Your task to perform on an android device: Clear all items from cart on ebay.com. Search for usb-c to usb-b on ebay.com, select the first entry, and add it to the cart. Image 0: 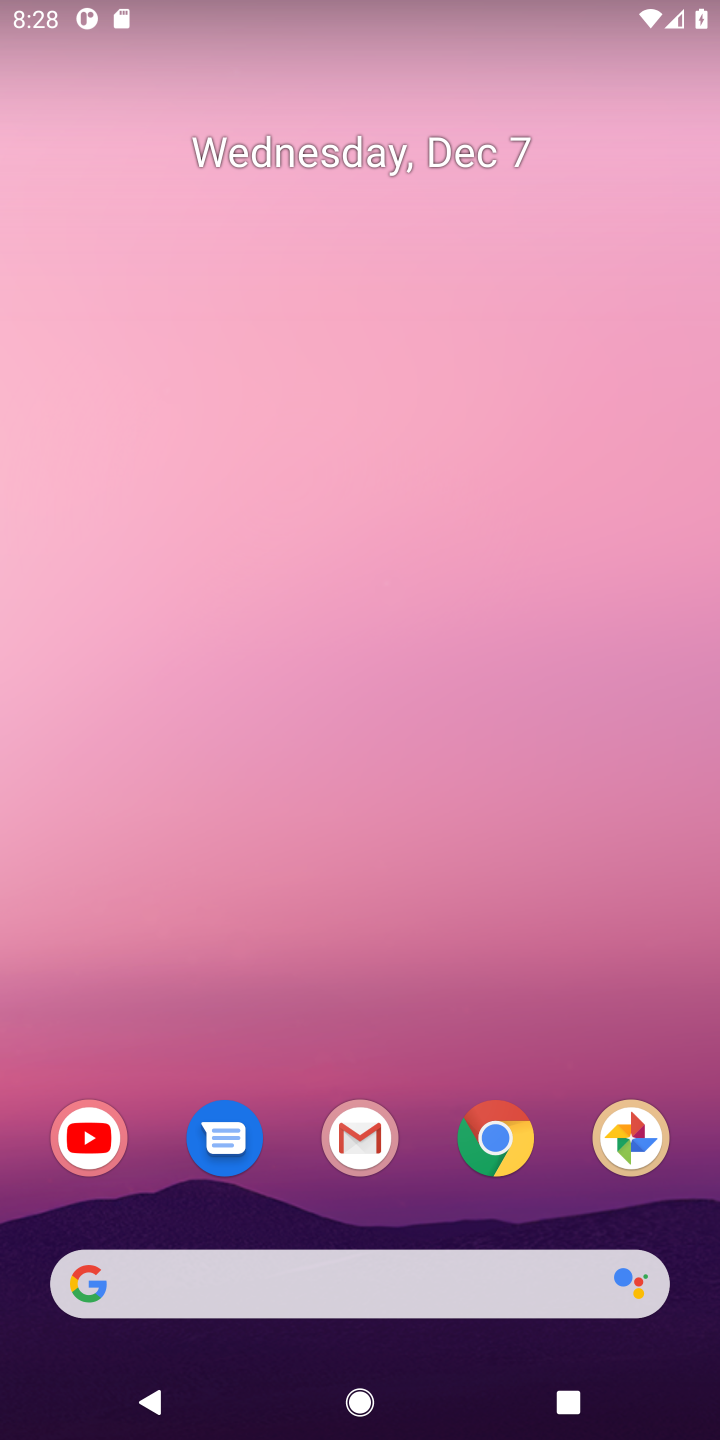
Step 0: press home button
Your task to perform on an android device: Clear all items from cart on ebay.com. Search for usb-c to usb-b on ebay.com, select the first entry, and add it to the cart. Image 1: 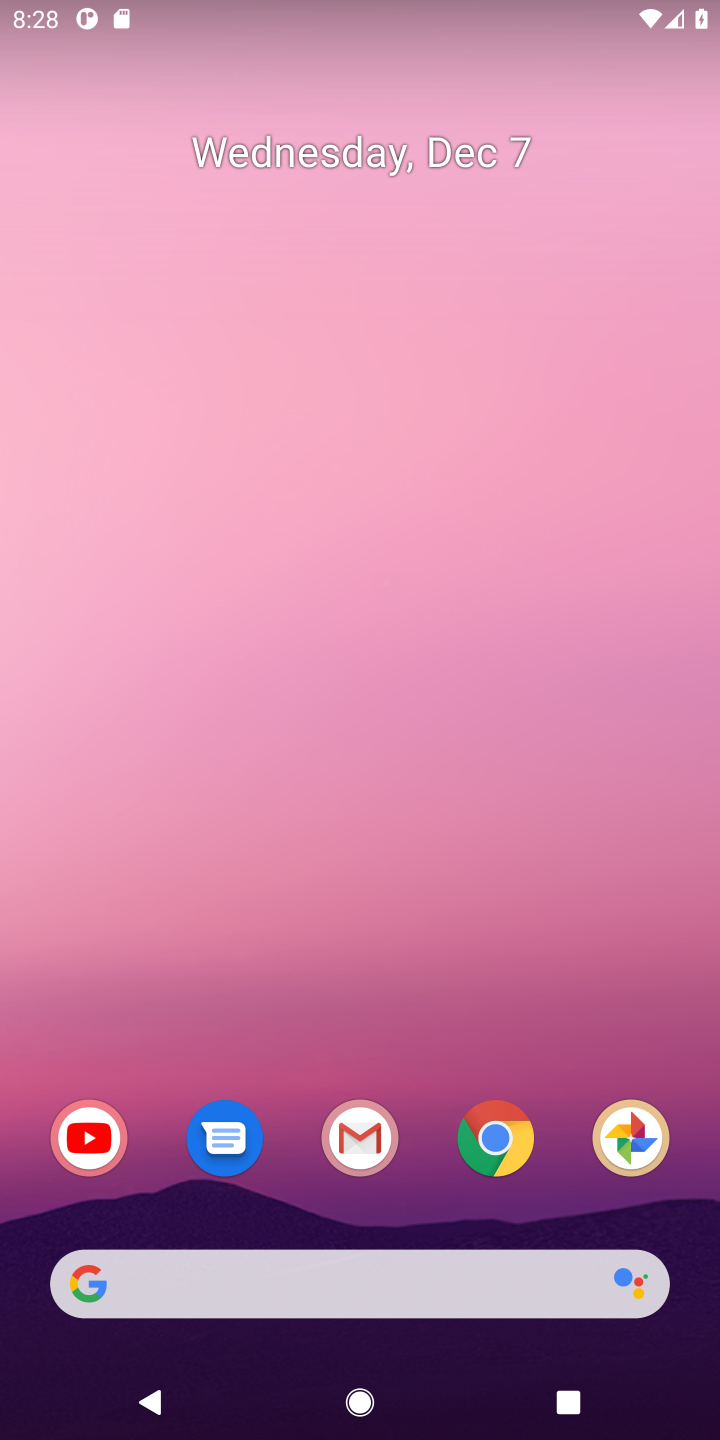
Step 1: click (134, 1289)
Your task to perform on an android device: Clear all items from cart on ebay.com. Search for usb-c to usb-b on ebay.com, select the first entry, and add it to the cart. Image 2: 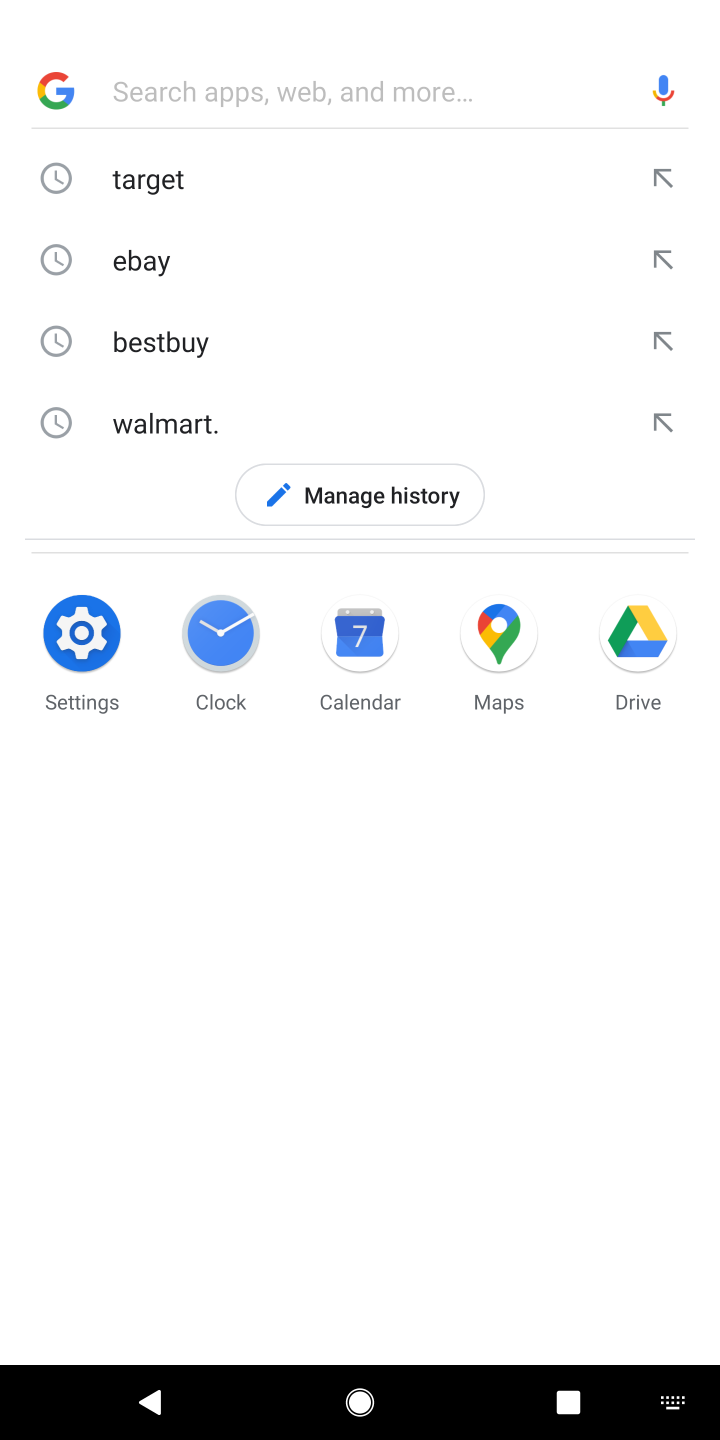
Step 2: type "ebay.com"
Your task to perform on an android device: Clear all items from cart on ebay.com. Search for usb-c to usb-b on ebay.com, select the first entry, and add it to the cart. Image 3: 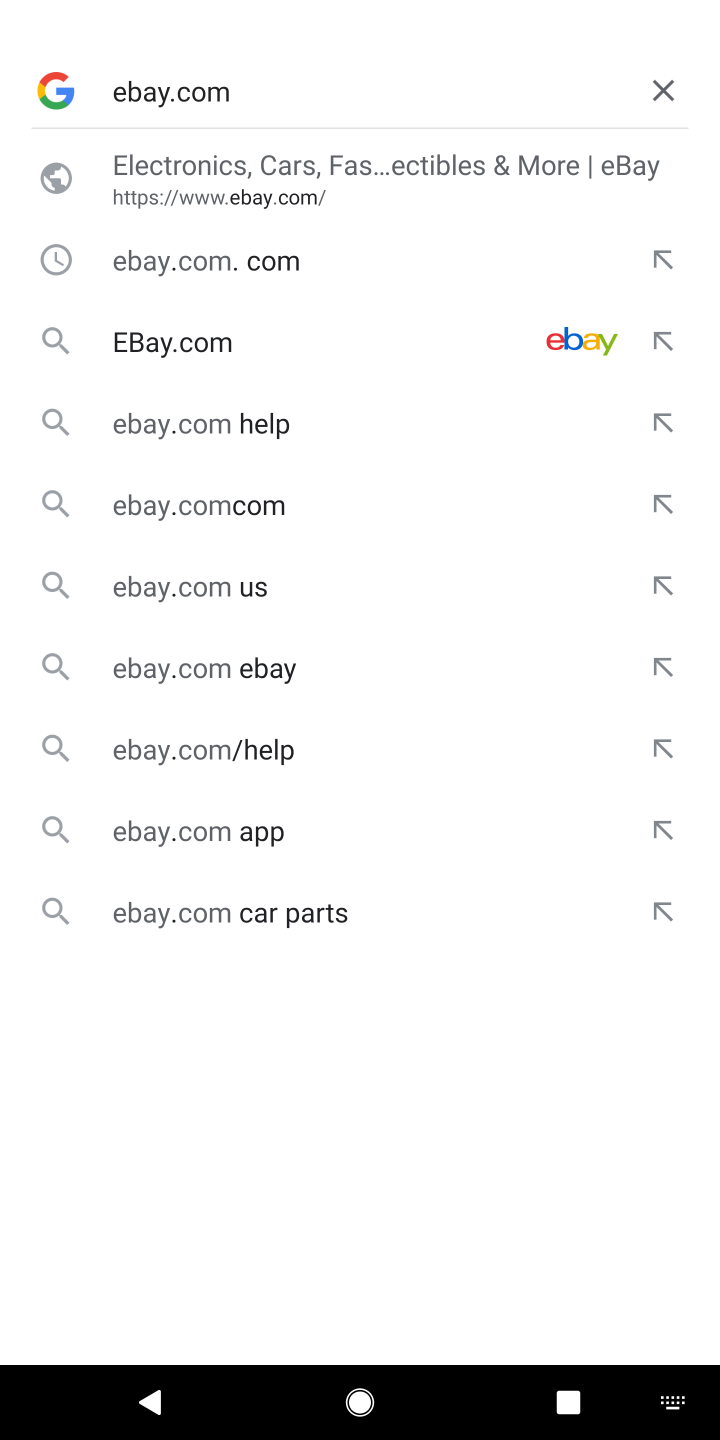
Step 3: press enter
Your task to perform on an android device: Clear all items from cart on ebay.com. Search for usb-c to usb-b on ebay.com, select the first entry, and add it to the cart. Image 4: 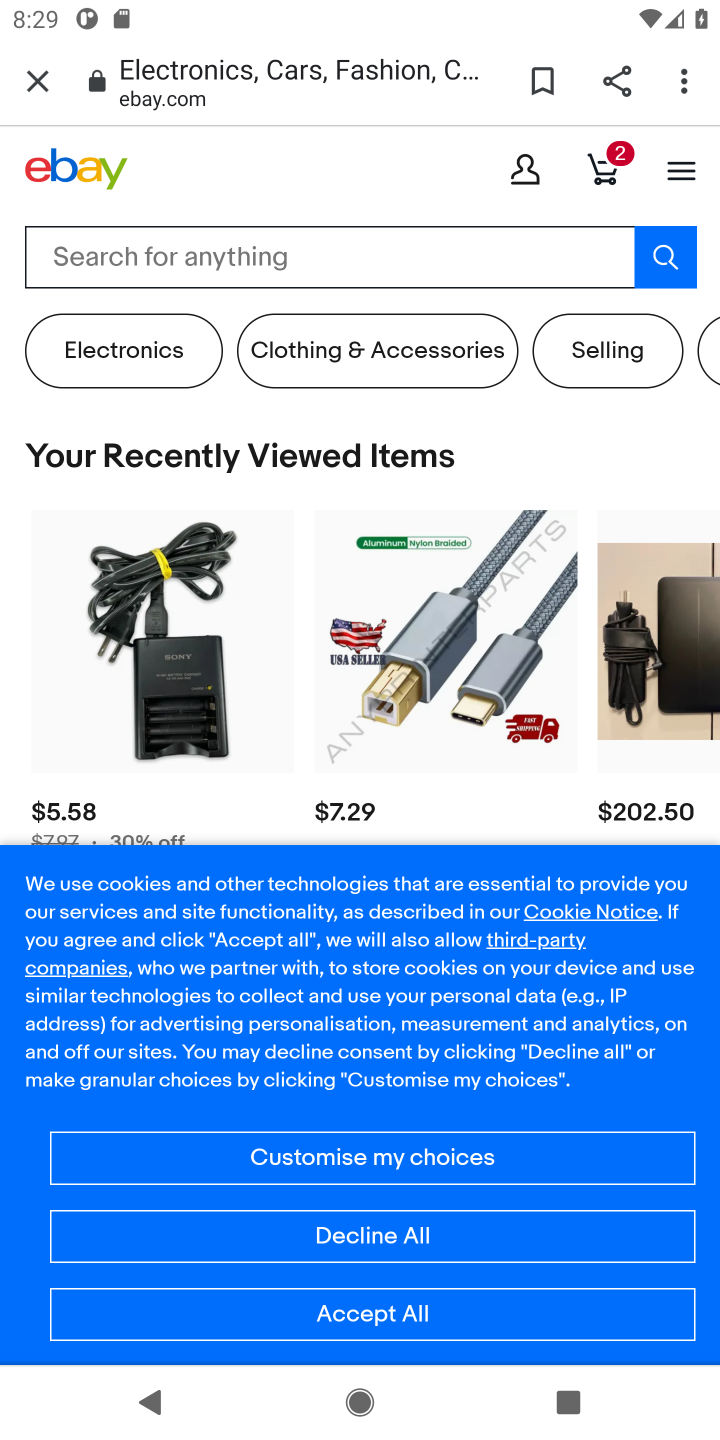
Step 4: click (600, 165)
Your task to perform on an android device: Clear all items from cart on ebay.com. Search for usb-c to usb-b on ebay.com, select the first entry, and add it to the cart. Image 5: 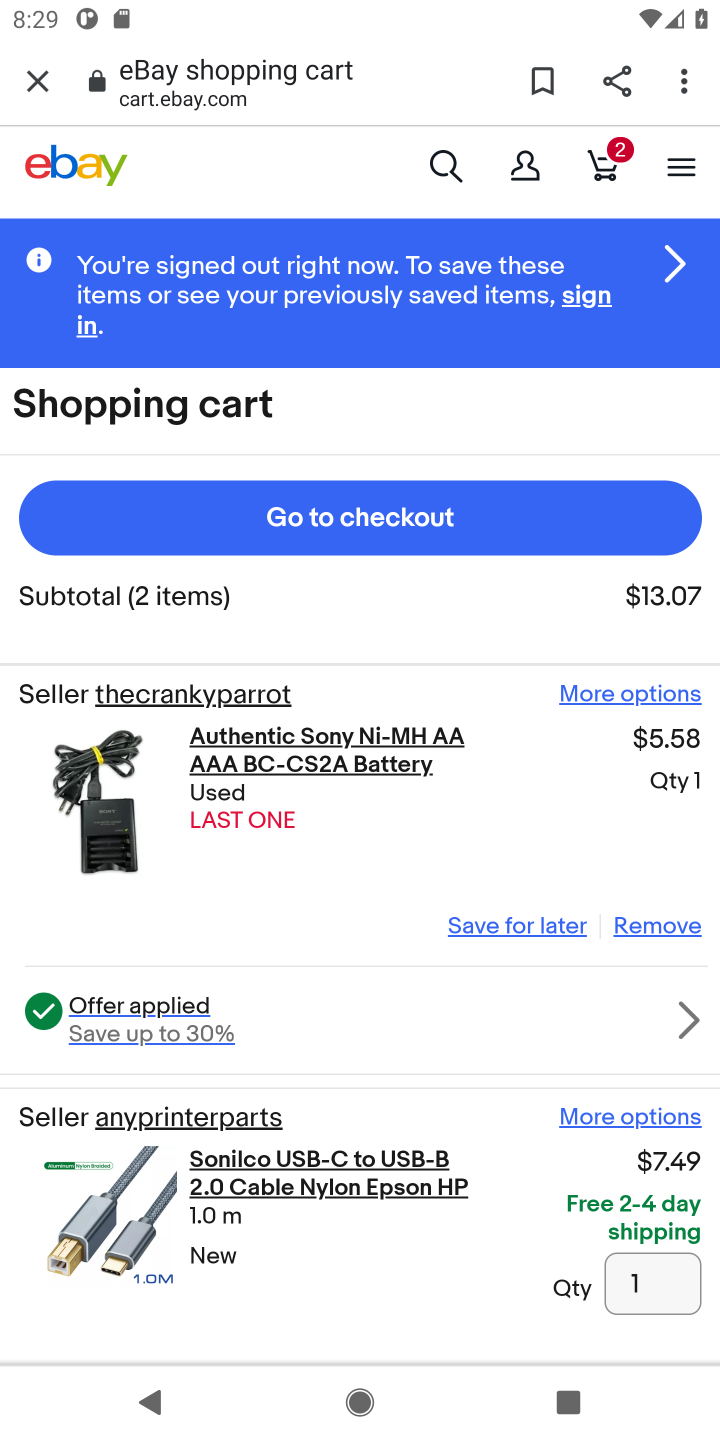
Step 5: click (659, 917)
Your task to perform on an android device: Clear all items from cart on ebay.com. Search for usb-c to usb-b on ebay.com, select the first entry, and add it to the cart. Image 6: 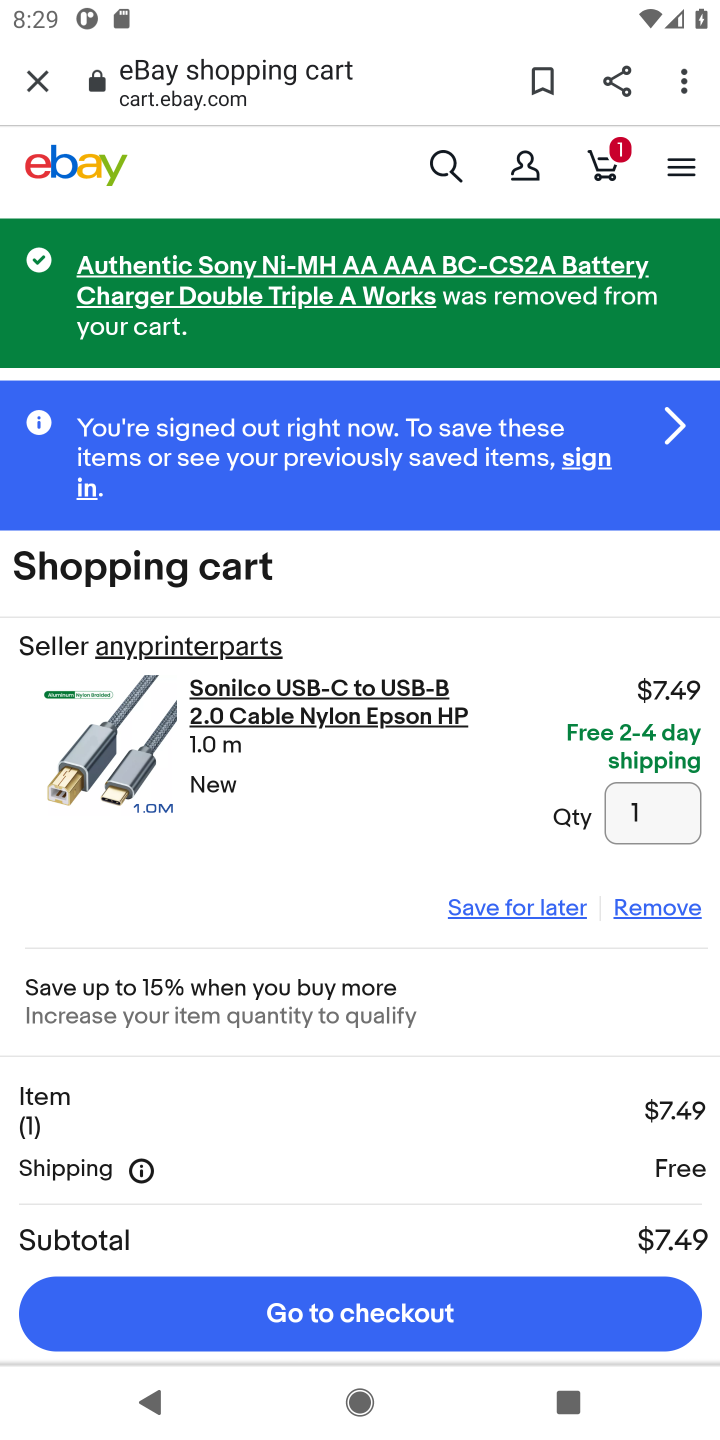
Step 6: click (652, 913)
Your task to perform on an android device: Clear all items from cart on ebay.com. Search for usb-c to usb-b on ebay.com, select the first entry, and add it to the cart. Image 7: 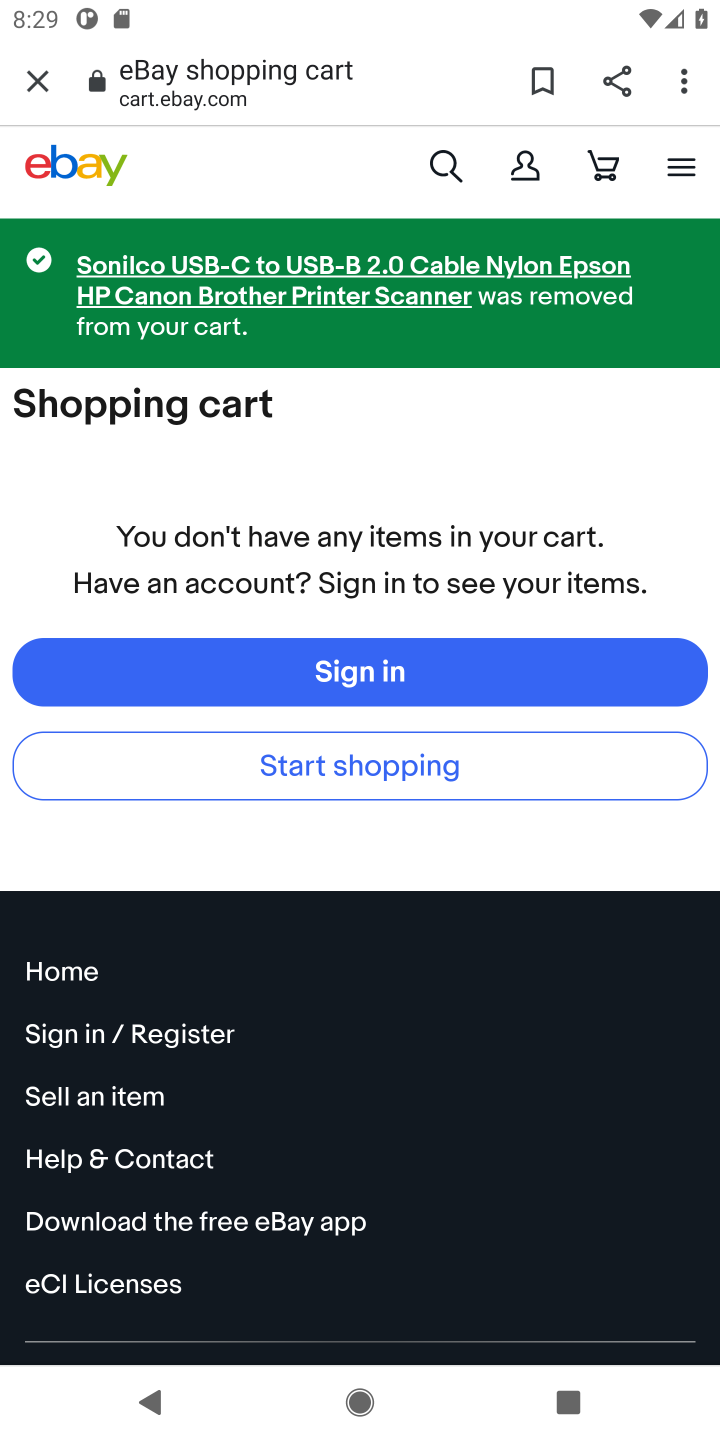
Step 7: click (438, 157)
Your task to perform on an android device: Clear all items from cart on ebay.com. Search for usb-c to usb-b on ebay.com, select the first entry, and add it to the cart. Image 8: 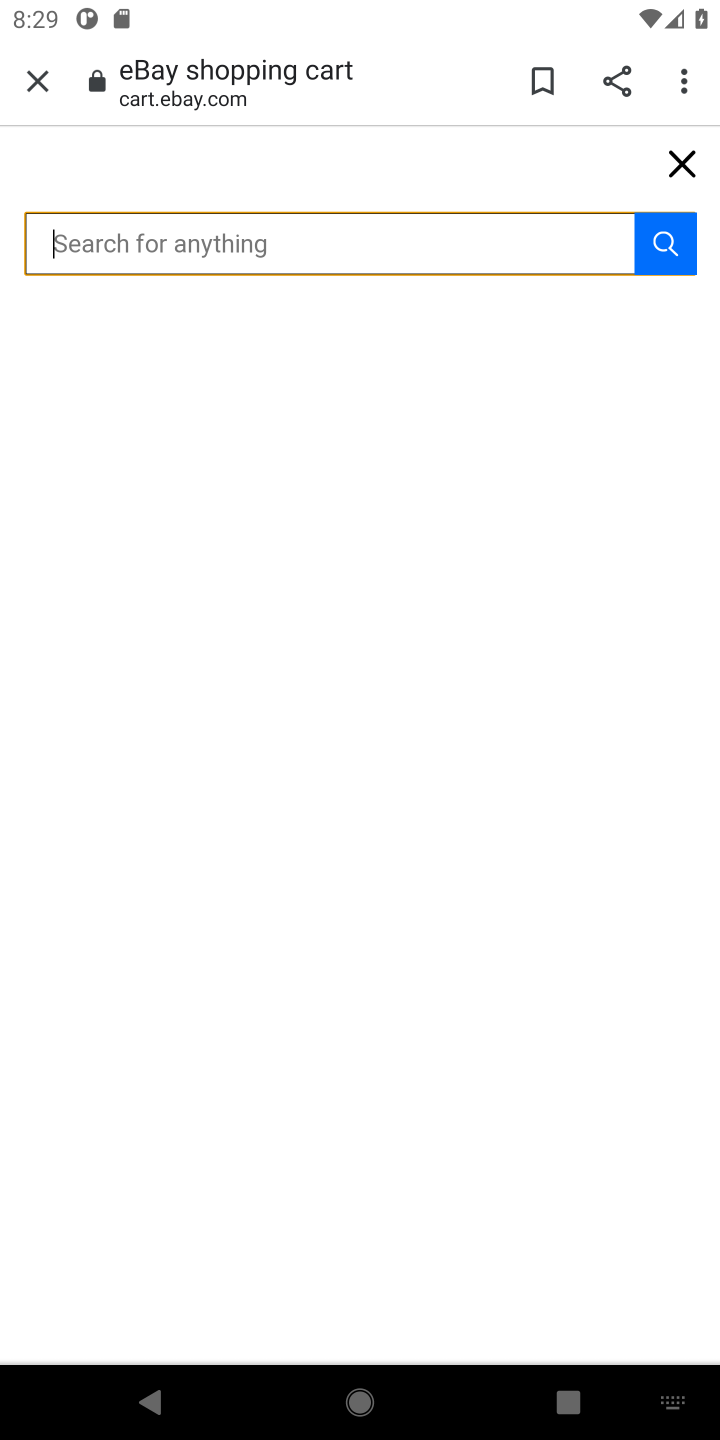
Step 8: click (164, 257)
Your task to perform on an android device: Clear all items from cart on ebay.com. Search for usb-c to usb-b on ebay.com, select the first entry, and add it to the cart. Image 9: 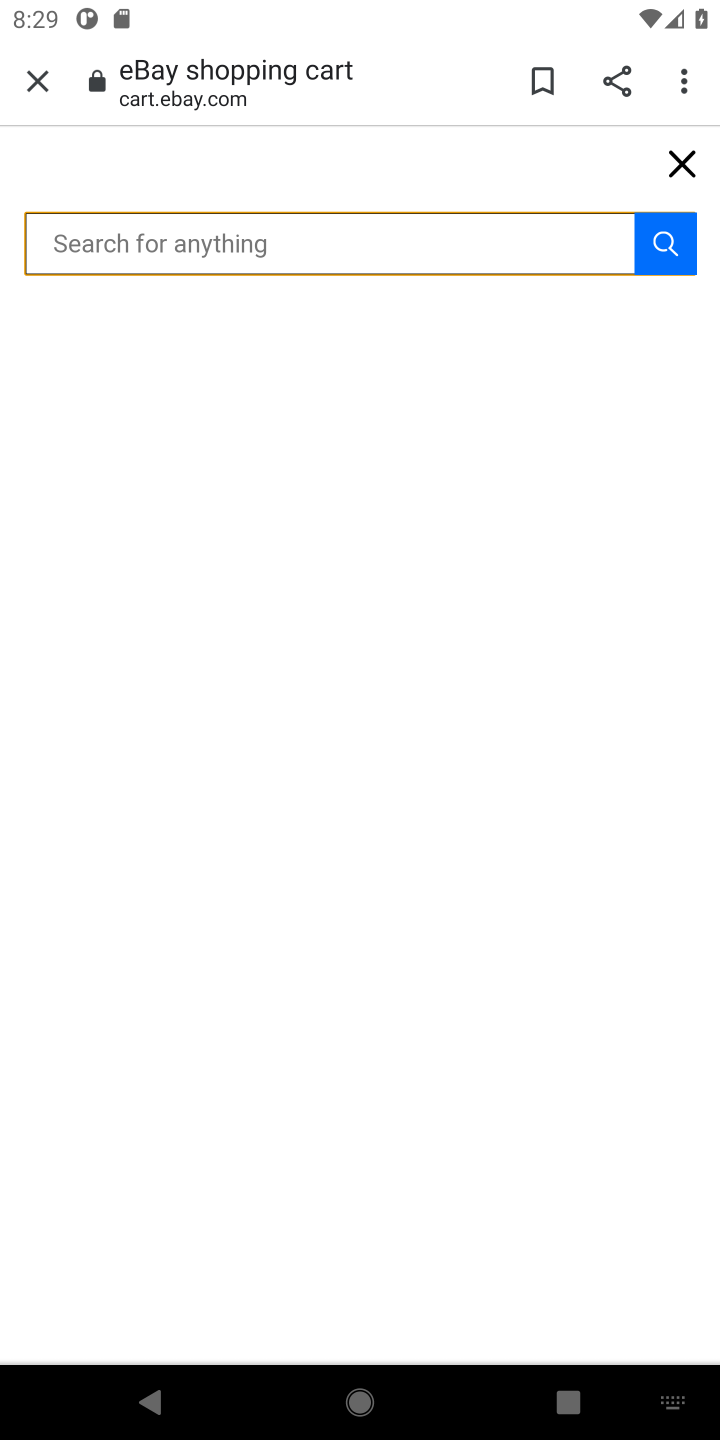
Step 9: type "usb-c to usb-b"
Your task to perform on an android device: Clear all items from cart on ebay.com. Search for usb-c to usb-b on ebay.com, select the first entry, and add it to the cart. Image 10: 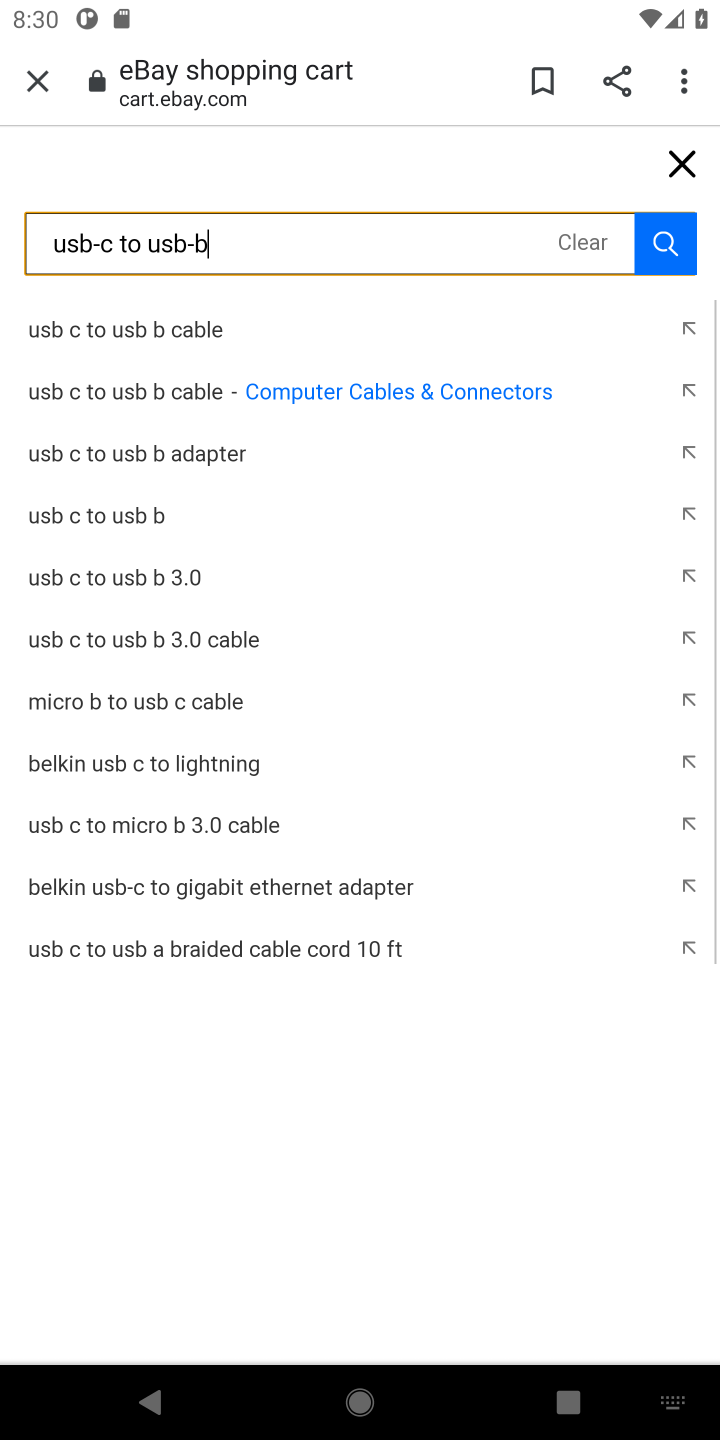
Step 10: press enter
Your task to perform on an android device: Clear all items from cart on ebay.com. Search for usb-c to usb-b on ebay.com, select the first entry, and add it to the cart. Image 11: 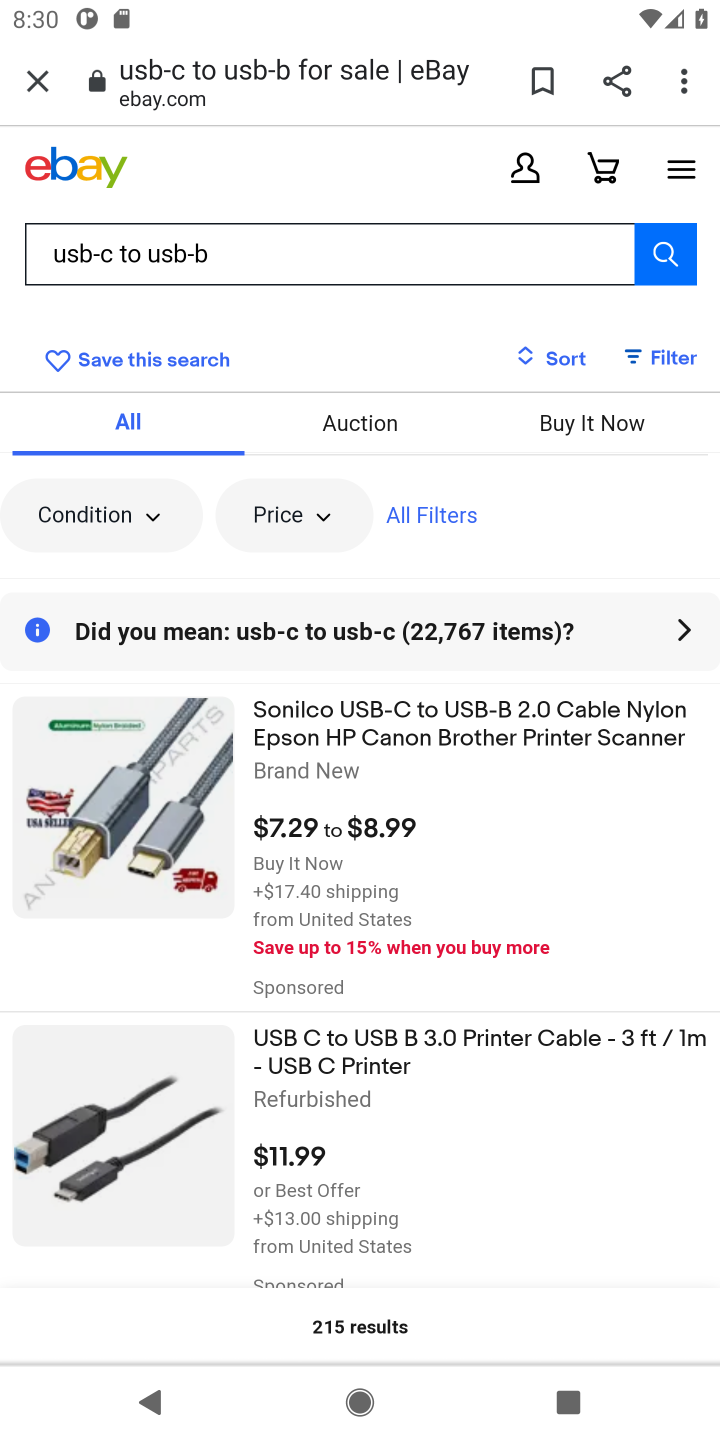
Step 11: drag from (493, 1147) to (493, 624)
Your task to perform on an android device: Clear all items from cart on ebay.com. Search for usb-c to usb-b on ebay.com, select the first entry, and add it to the cart. Image 12: 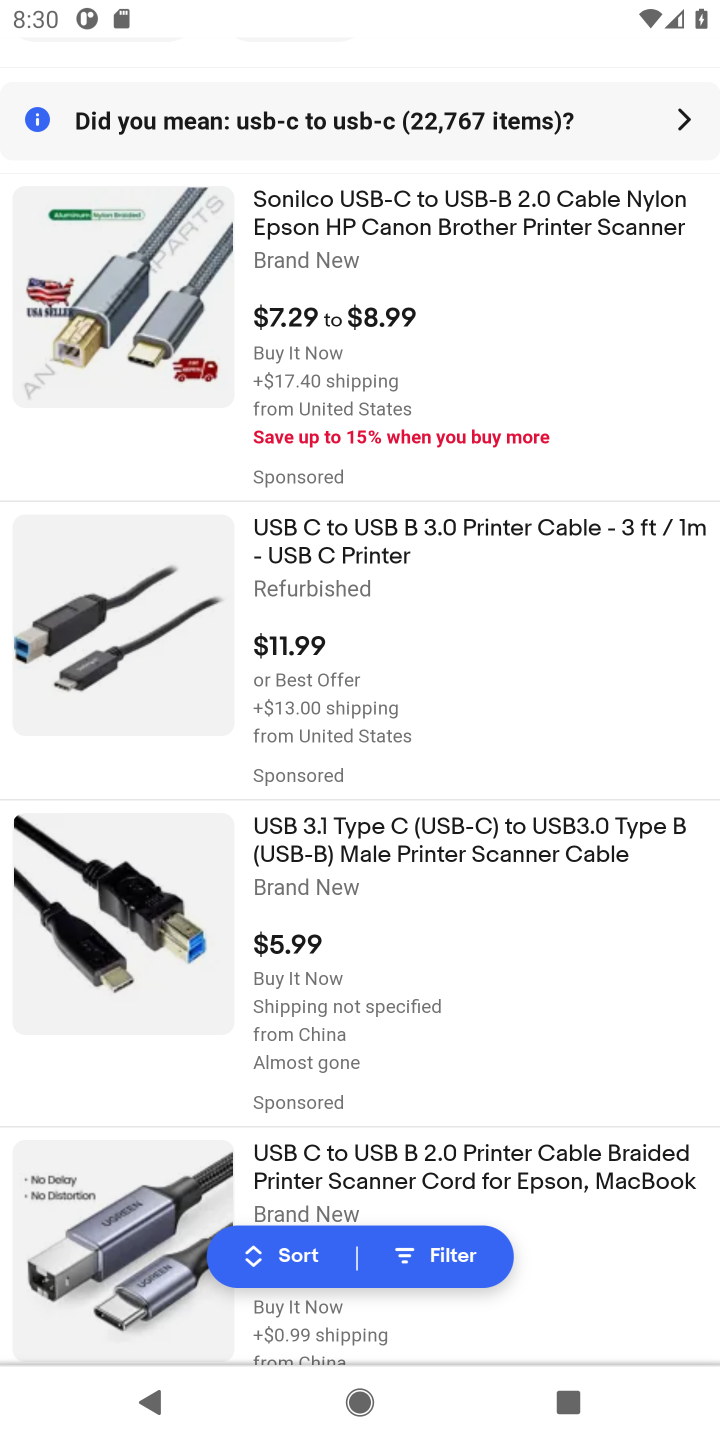
Step 12: drag from (494, 341) to (520, 943)
Your task to perform on an android device: Clear all items from cart on ebay.com. Search for usb-c to usb-b on ebay.com, select the first entry, and add it to the cart. Image 13: 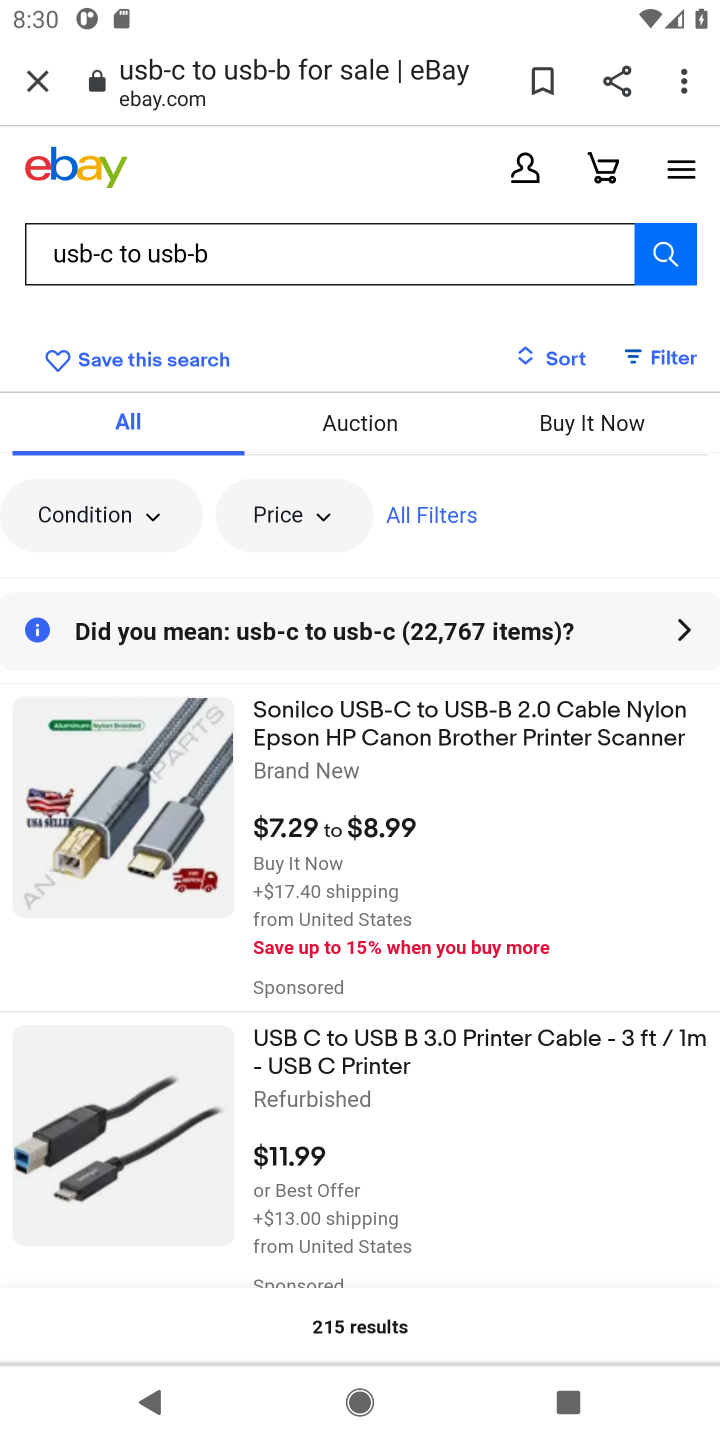
Step 13: click (373, 715)
Your task to perform on an android device: Clear all items from cart on ebay.com. Search for usb-c to usb-b on ebay.com, select the first entry, and add it to the cart. Image 14: 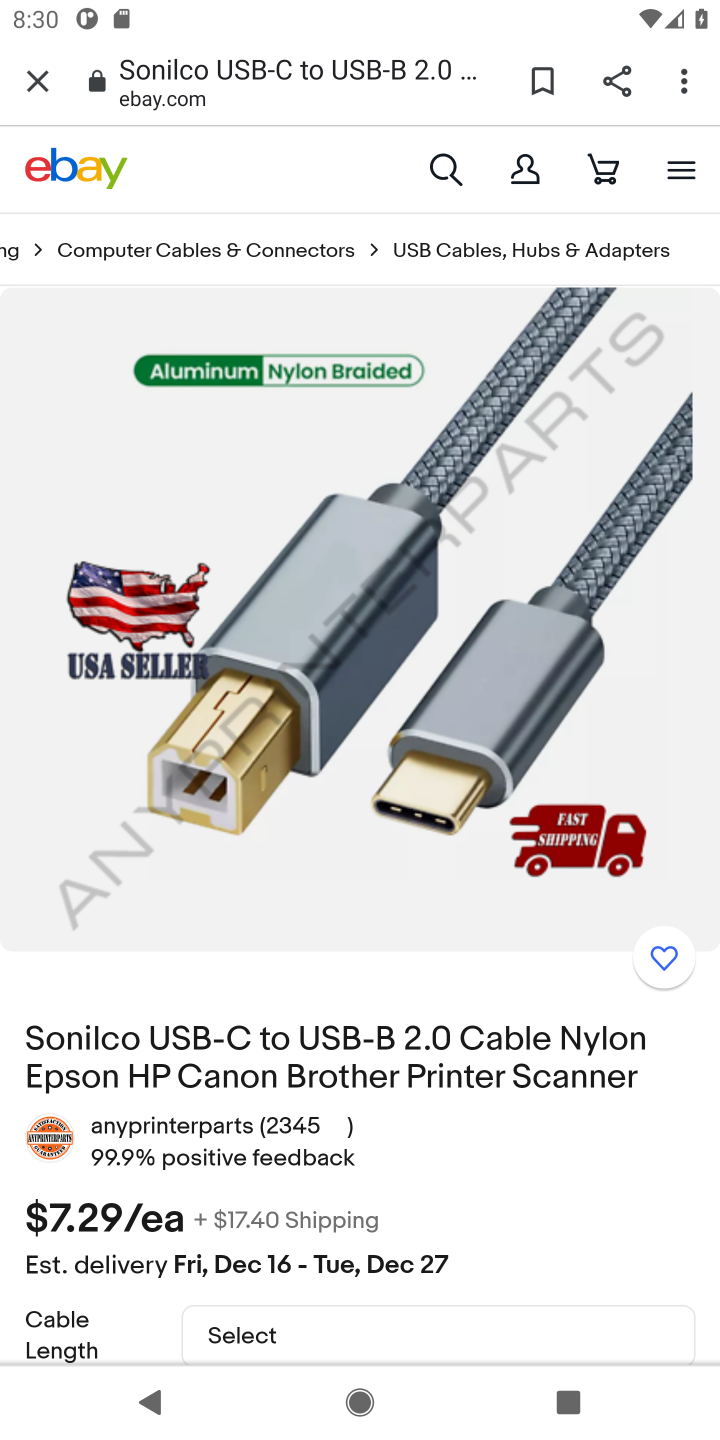
Step 14: drag from (486, 1174) to (492, 489)
Your task to perform on an android device: Clear all items from cart on ebay.com. Search for usb-c to usb-b on ebay.com, select the first entry, and add it to the cart. Image 15: 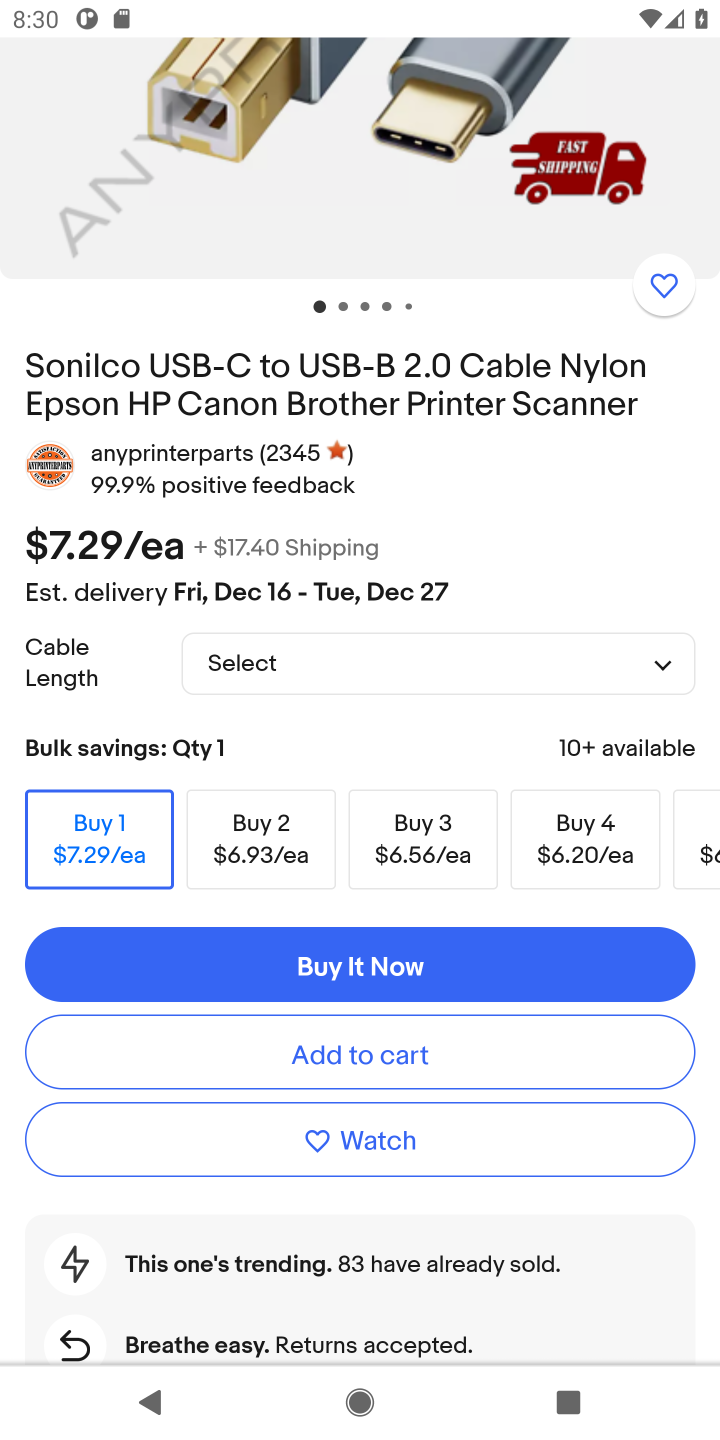
Step 15: click (383, 1060)
Your task to perform on an android device: Clear all items from cart on ebay.com. Search for usb-c to usb-b on ebay.com, select the first entry, and add it to the cart. Image 16: 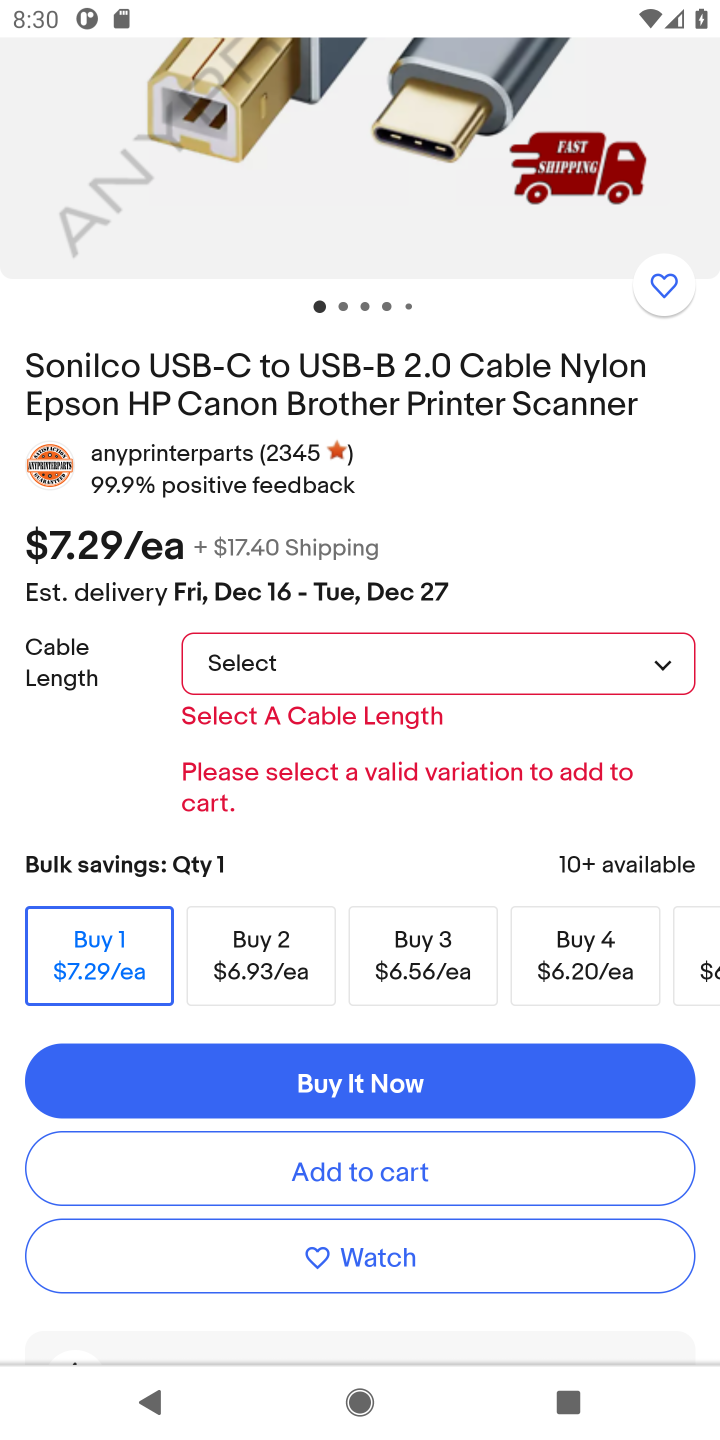
Step 16: click (655, 660)
Your task to perform on an android device: Clear all items from cart on ebay.com. Search for usb-c to usb-b on ebay.com, select the first entry, and add it to the cart. Image 17: 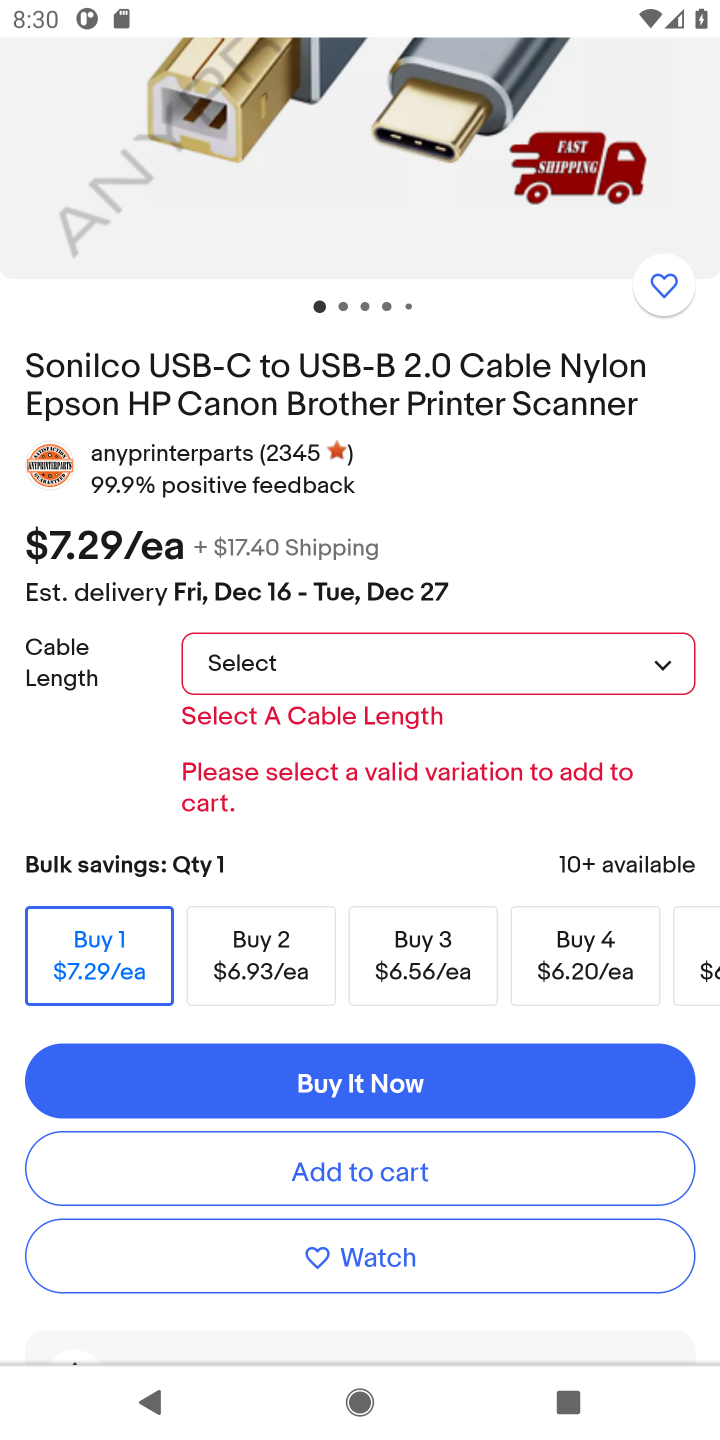
Step 17: click (669, 667)
Your task to perform on an android device: Clear all items from cart on ebay.com. Search for usb-c to usb-b on ebay.com, select the first entry, and add it to the cart. Image 18: 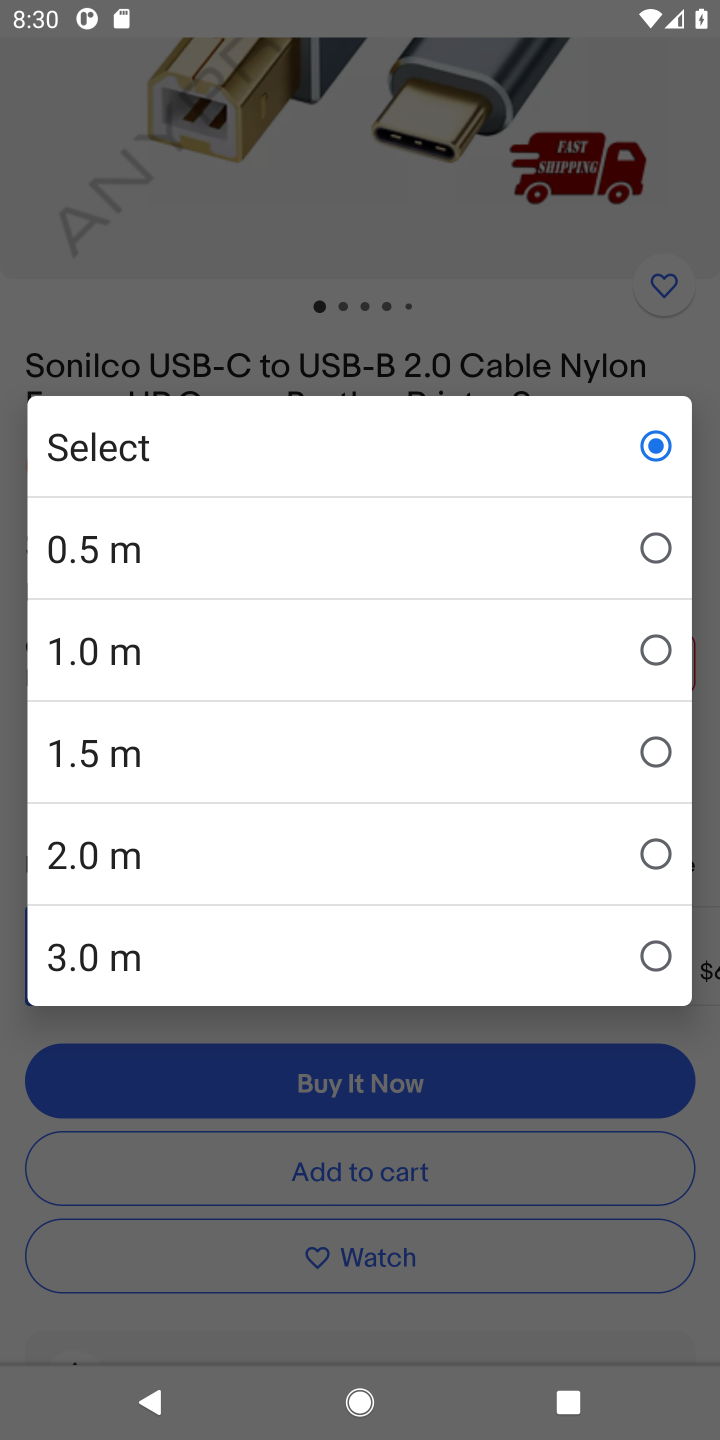
Step 18: click (655, 647)
Your task to perform on an android device: Clear all items from cart on ebay.com. Search for usb-c to usb-b on ebay.com, select the first entry, and add it to the cart. Image 19: 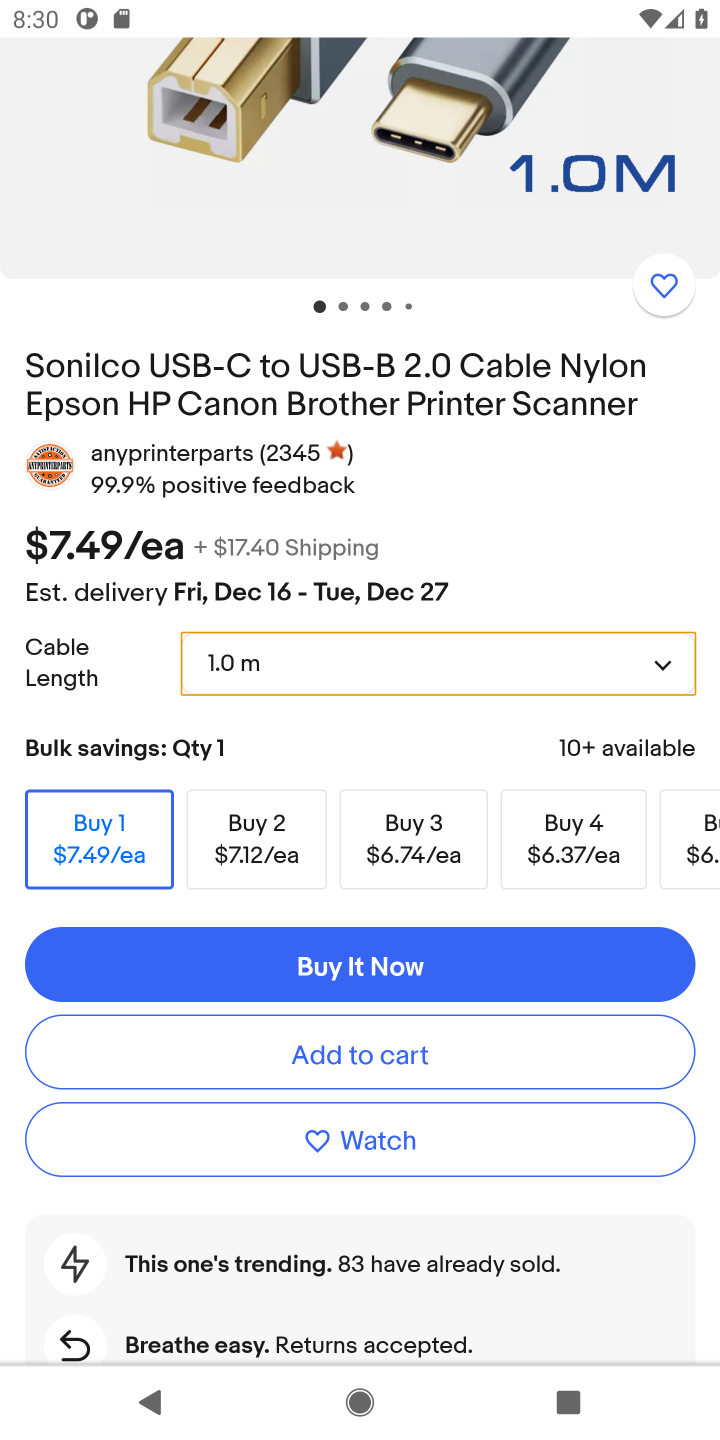
Step 19: click (361, 1052)
Your task to perform on an android device: Clear all items from cart on ebay.com. Search for usb-c to usb-b on ebay.com, select the first entry, and add it to the cart. Image 20: 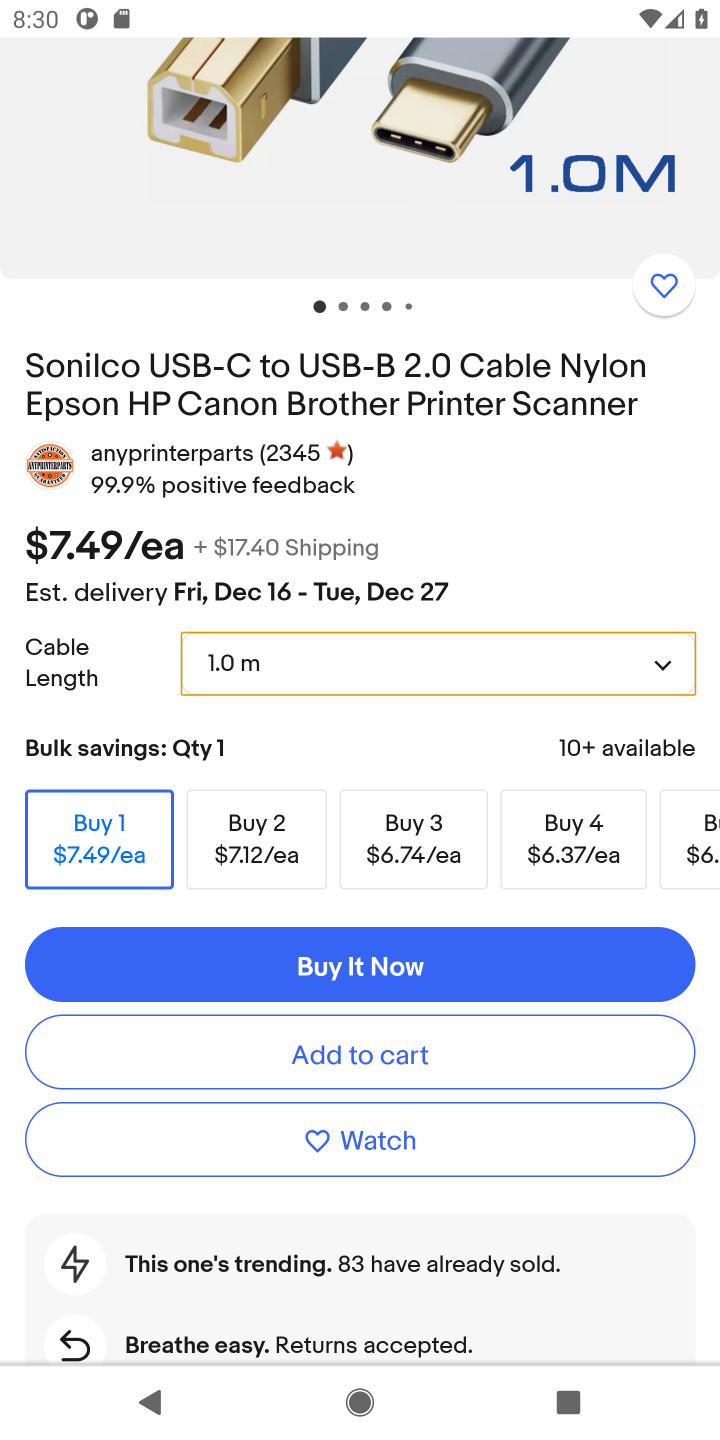
Step 20: click (324, 1060)
Your task to perform on an android device: Clear all items from cart on ebay.com. Search for usb-c to usb-b on ebay.com, select the first entry, and add it to the cart. Image 21: 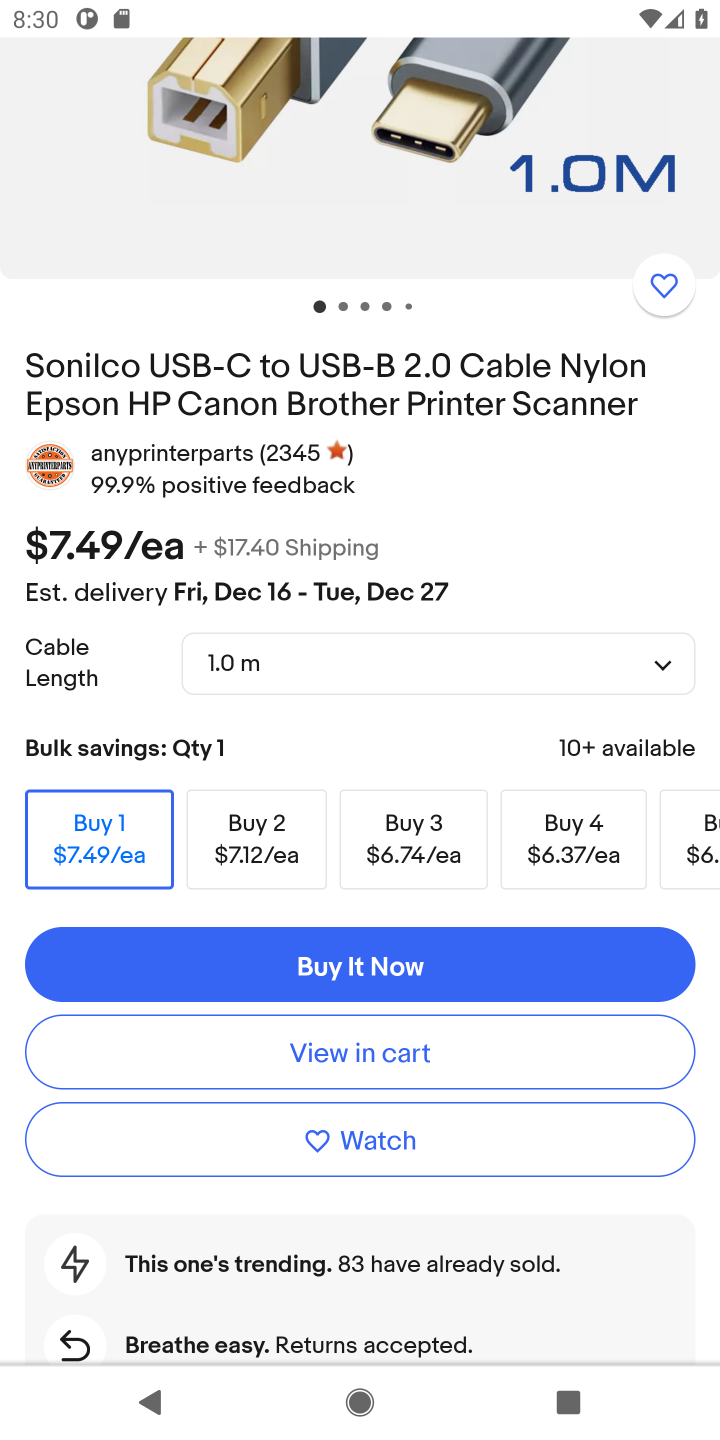
Step 21: task complete